Your task to perform on an android device: Go to Amazon Image 0: 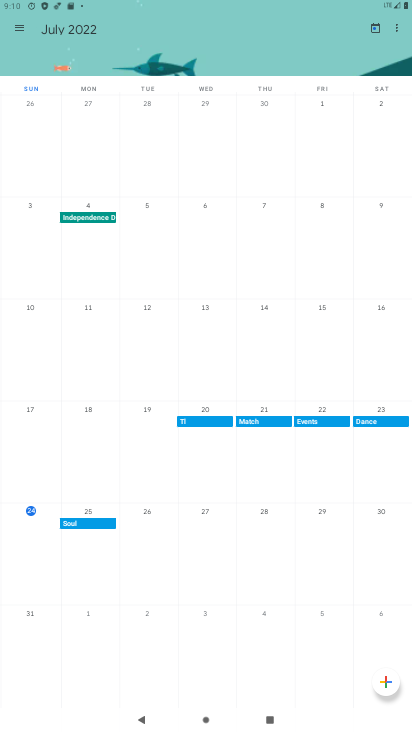
Step 0: press home button
Your task to perform on an android device: Go to Amazon Image 1: 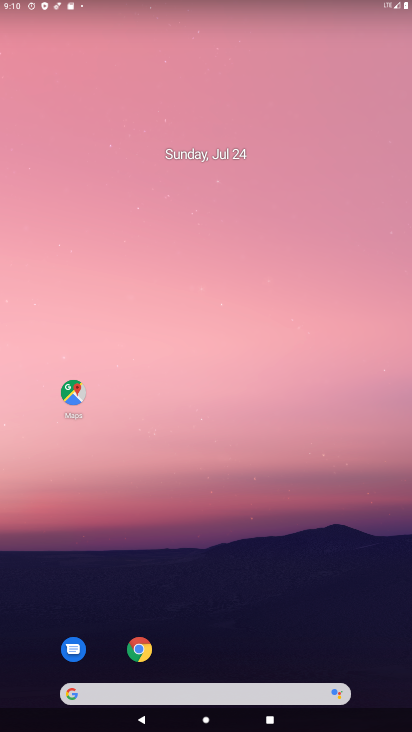
Step 1: drag from (20, 707) to (294, 272)
Your task to perform on an android device: Go to Amazon Image 2: 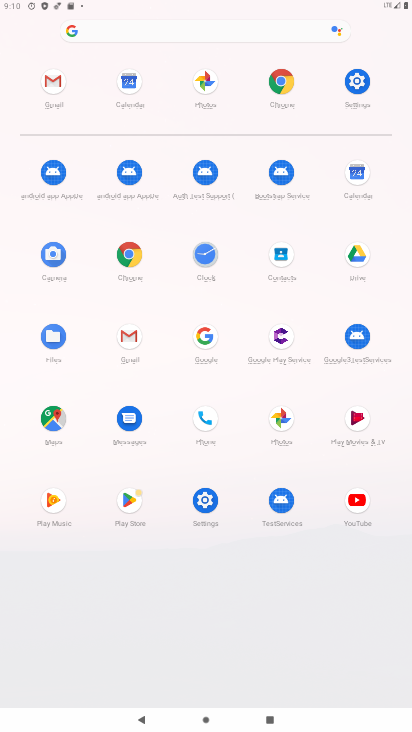
Step 2: click (91, 26)
Your task to perform on an android device: Go to Amazon Image 3: 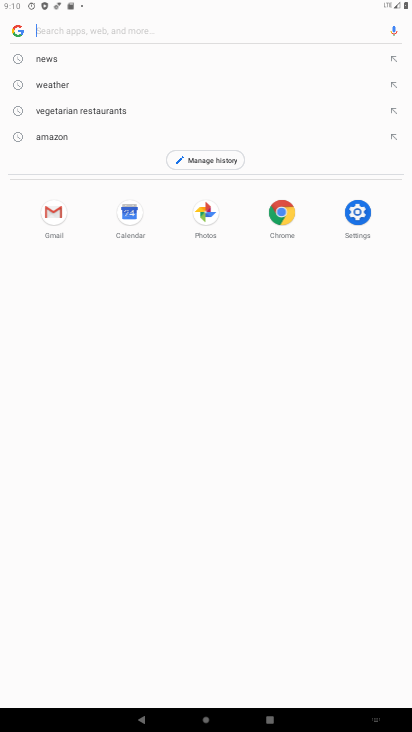
Step 3: click (51, 130)
Your task to perform on an android device: Go to Amazon Image 4: 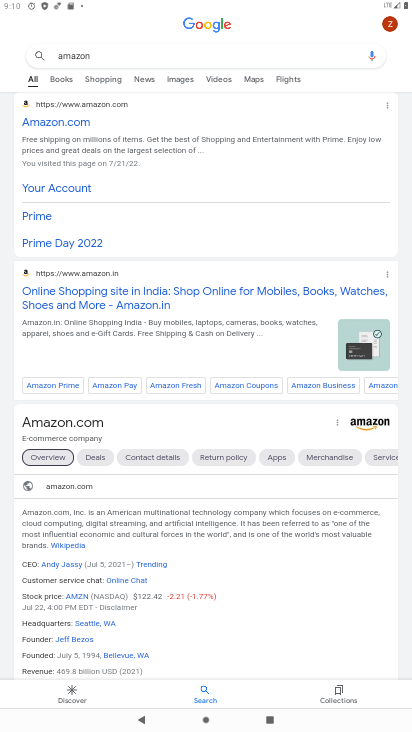
Step 4: task complete